Your task to perform on an android device: Open the web browser Image 0: 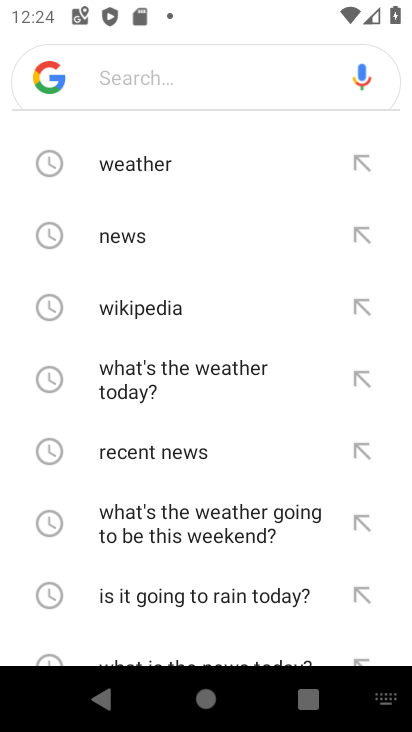
Step 0: press home button
Your task to perform on an android device: Open the web browser Image 1: 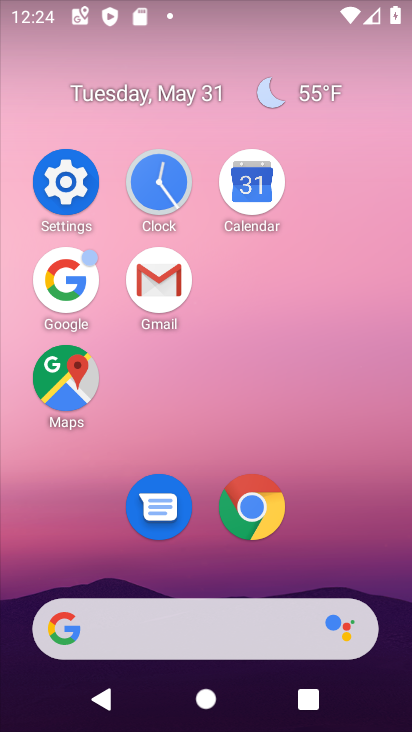
Step 1: click (246, 498)
Your task to perform on an android device: Open the web browser Image 2: 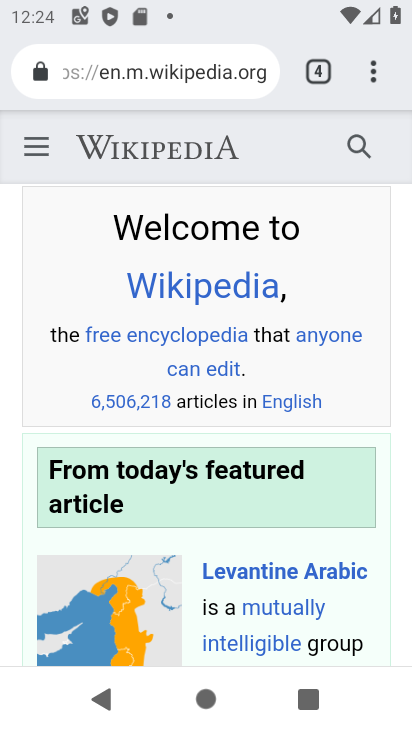
Step 2: task complete